Your task to perform on an android device: Go to Yahoo.com Image 0: 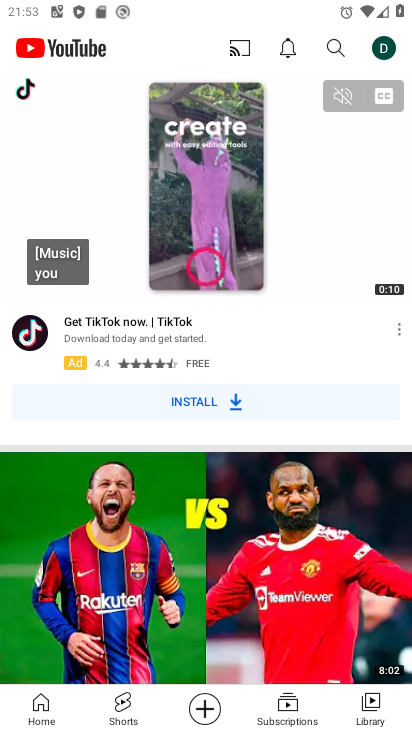
Step 0: press home button
Your task to perform on an android device: Go to Yahoo.com Image 1: 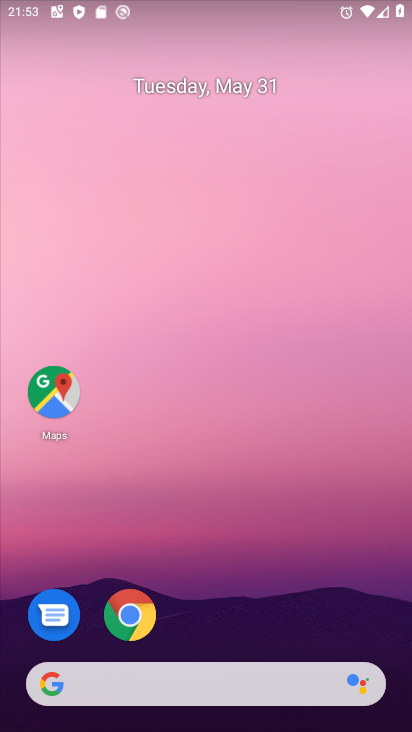
Step 1: click (145, 622)
Your task to perform on an android device: Go to Yahoo.com Image 2: 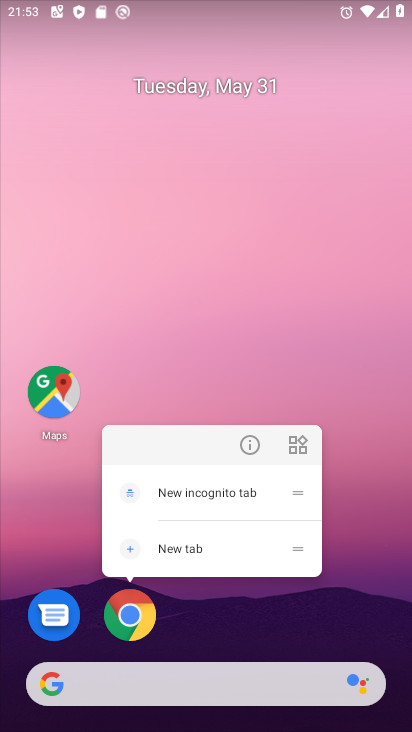
Step 2: click (109, 609)
Your task to perform on an android device: Go to Yahoo.com Image 3: 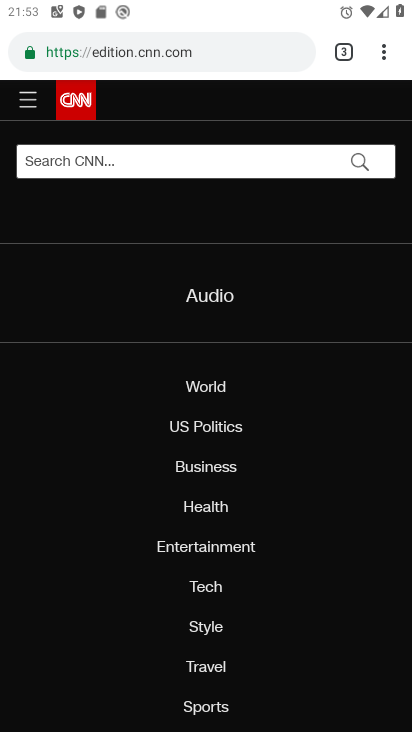
Step 3: click (347, 46)
Your task to perform on an android device: Go to Yahoo.com Image 4: 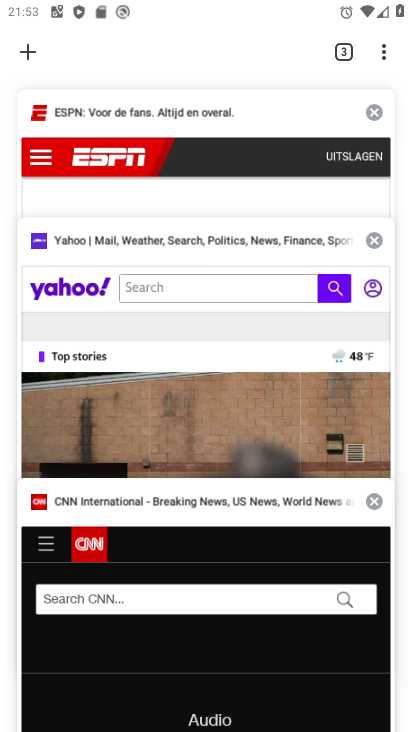
Step 4: click (138, 256)
Your task to perform on an android device: Go to Yahoo.com Image 5: 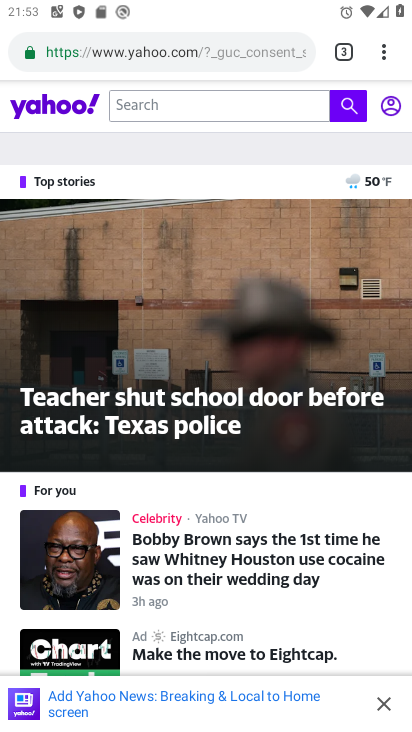
Step 5: task complete